Your task to perform on an android device: Open calendar and show me the fourth week of next month Image 0: 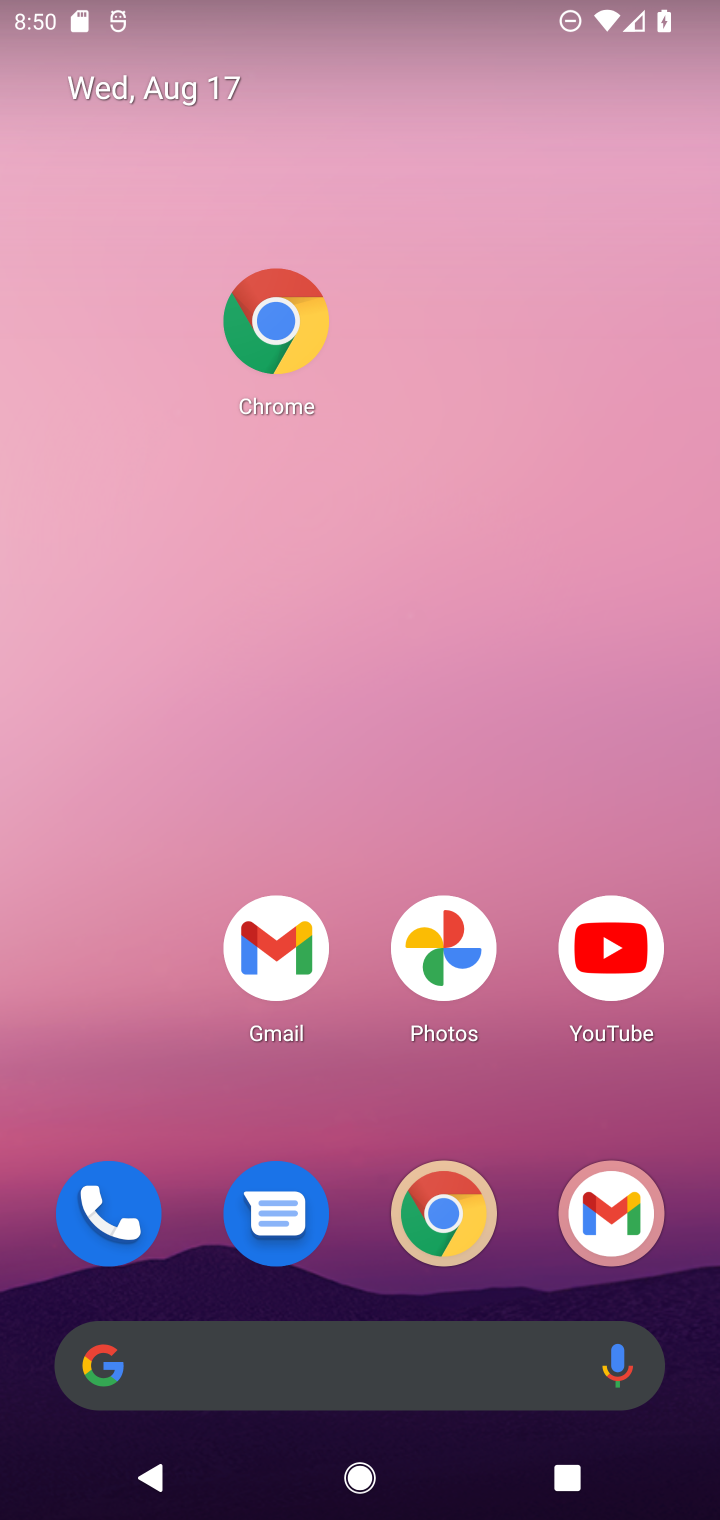
Step 0: drag from (363, 1313) to (410, 503)
Your task to perform on an android device: Open calendar and show me the fourth week of next month Image 1: 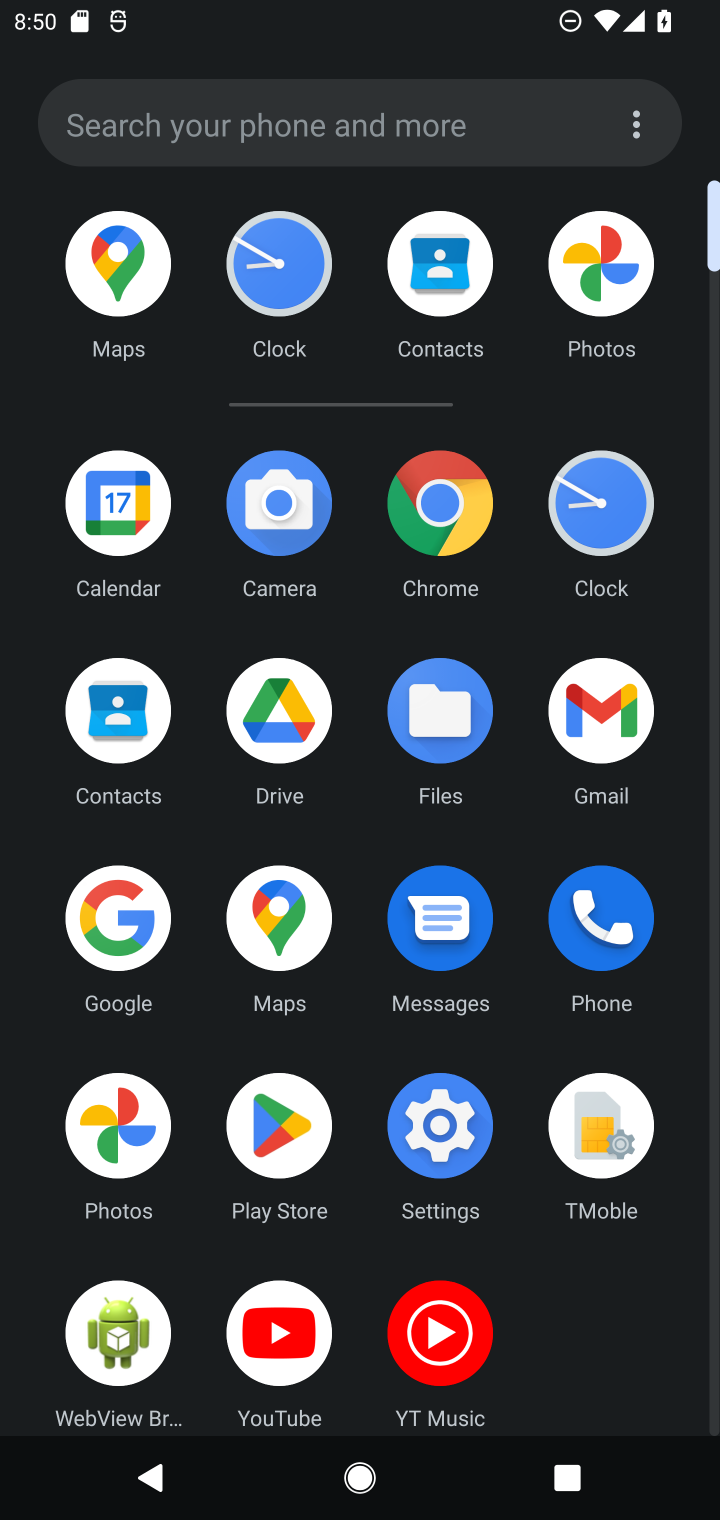
Step 1: click (102, 510)
Your task to perform on an android device: Open calendar and show me the fourth week of next month Image 2: 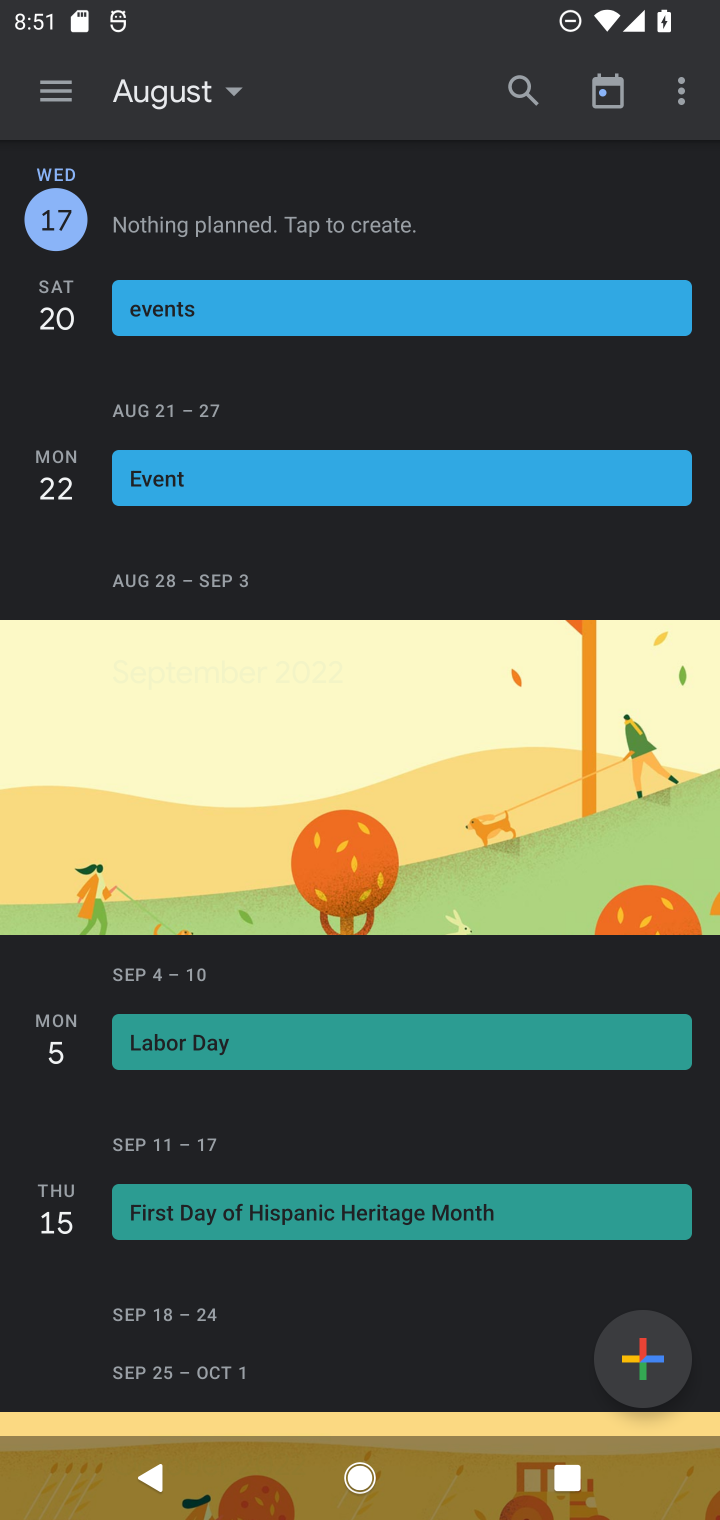
Step 2: task complete